Your task to perform on an android device: Open eBay Image 0: 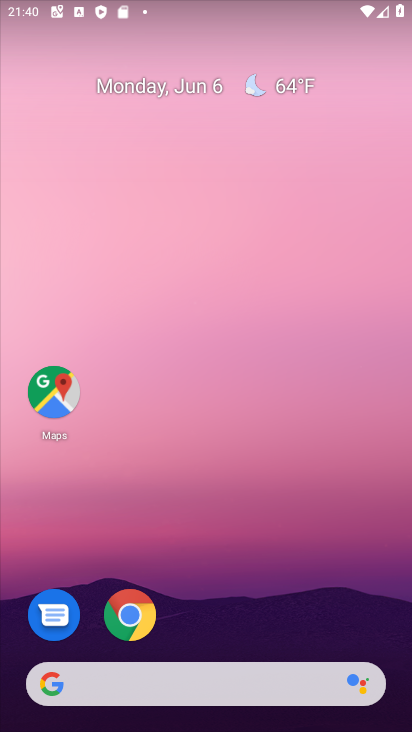
Step 0: click (143, 605)
Your task to perform on an android device: Open eBay Image 1: 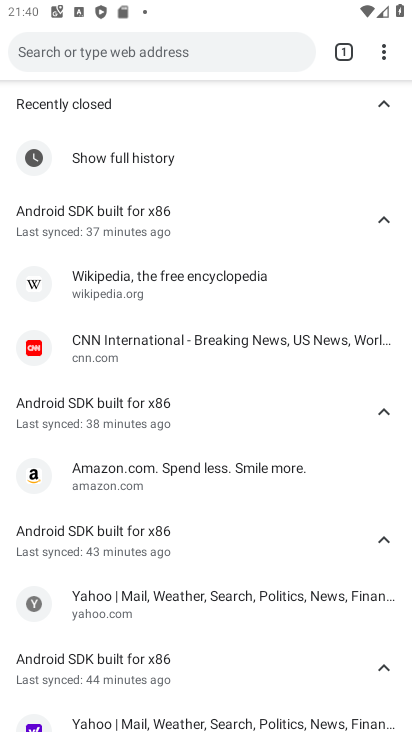
Step 1: click (174, 50)
Your task to perform on an android device: Open eBay Image 2: 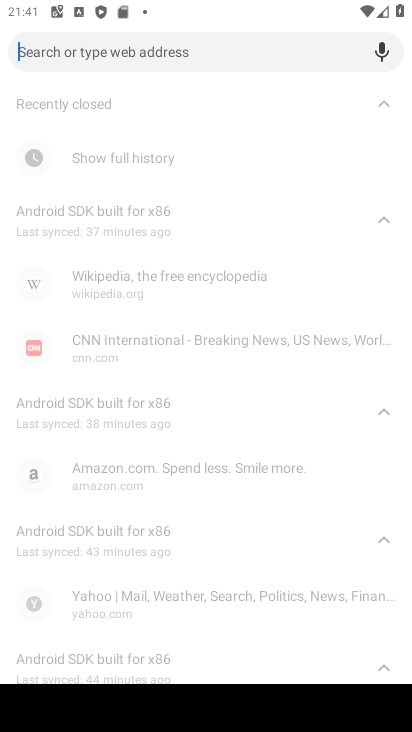
Step 2: type "eBay"
Your task to perform on an android device: Open eBay Image 3: 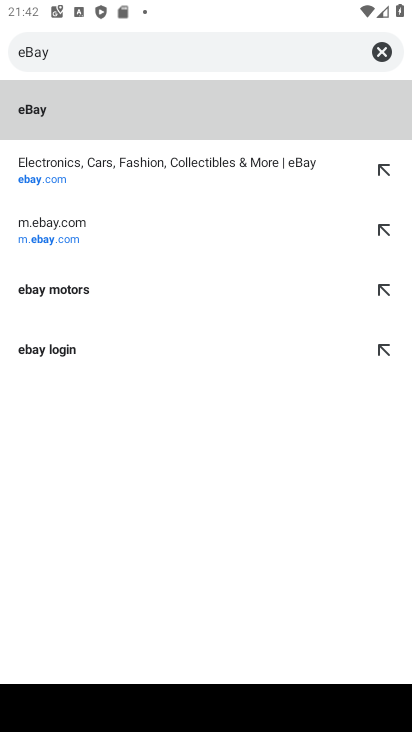
Step 3: click (62, 93)
Your task to perform on an android device: Open eBay Image 4: 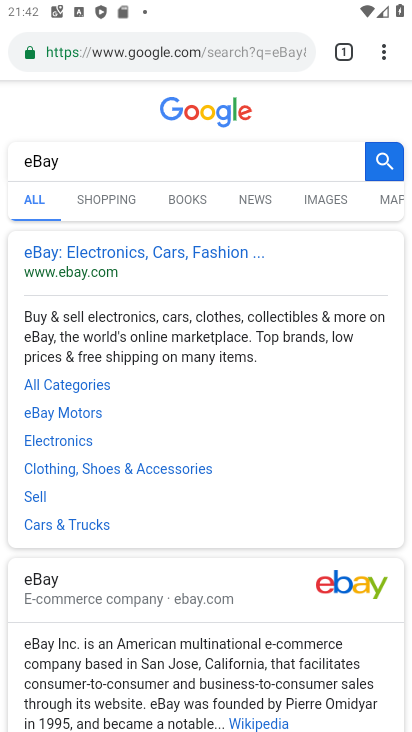
Step 4: task complete